Your task to perform on an android device: Go to accessibility settings Image 0: 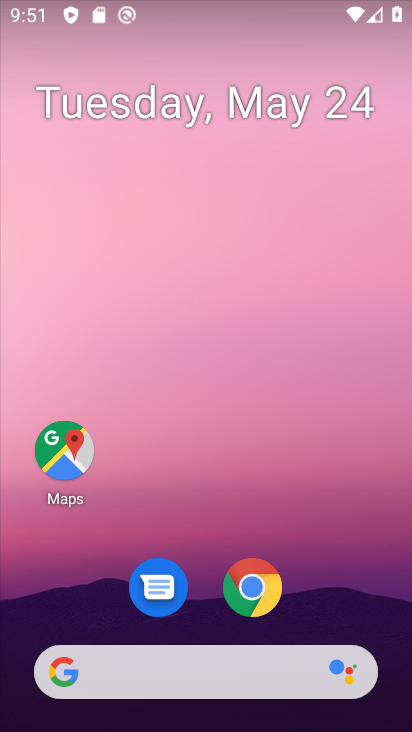
Step 0: press home button
Your task to perform on an android device: Go to accessibility settings Image 1: 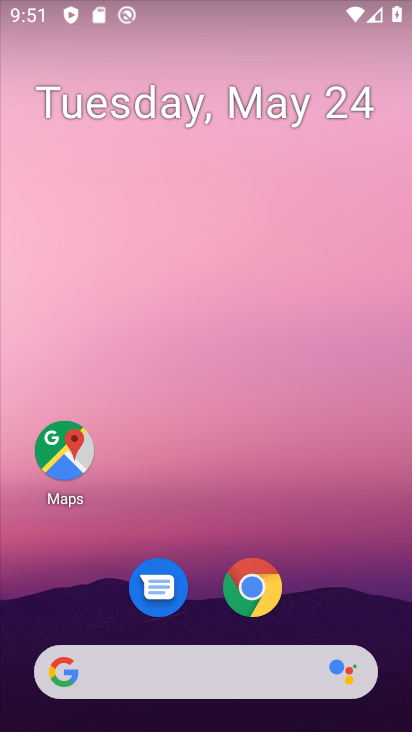
Step 1: drag from (364, 586) to (316, 69)
Your task to perform on an android device: Go to accessibility settings Image 2: 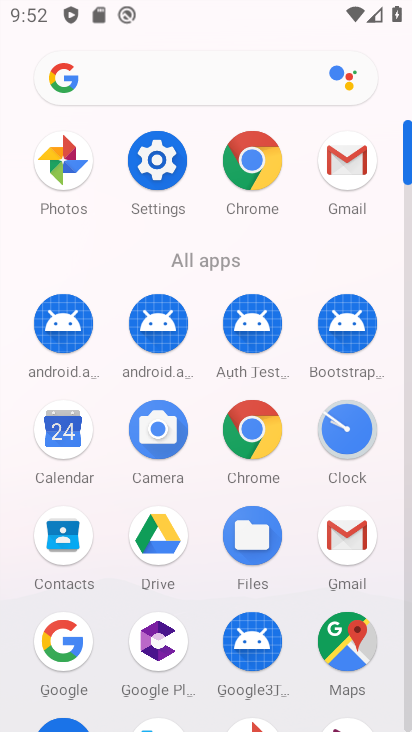
Step 2: click (163, 171)
Your task to perform on an android device: Go to accessibility settings Image 3: 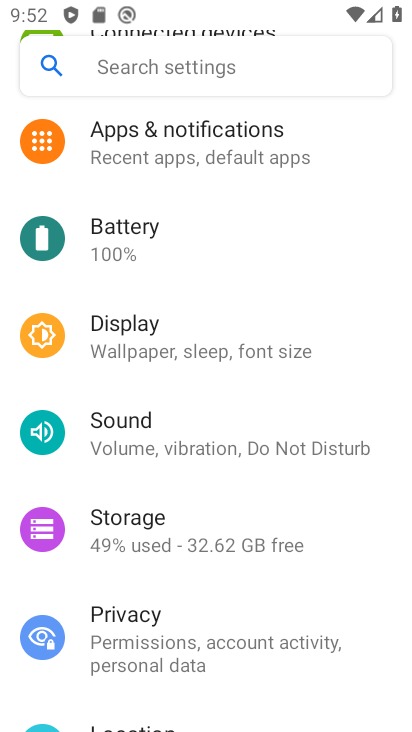
Step 3: drag from (195, 614) to (168, 230)
Your task to perform on an android device: Go to accessibility settings Image 4: 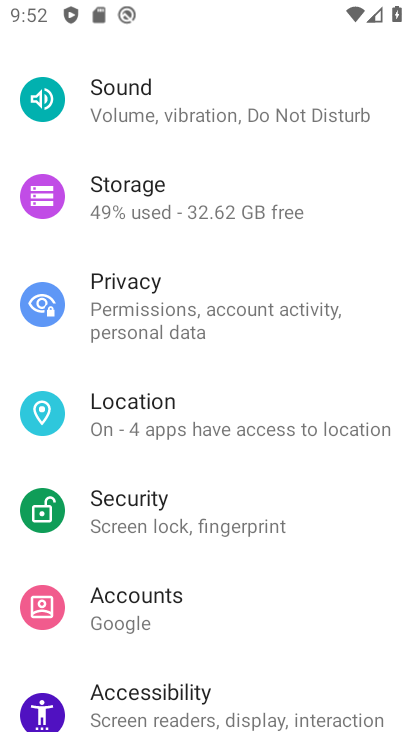
Step 4: drag from (239, 563) to (178, 262)
Your task to perform on an android device: Go to accessibility settings Image 5: 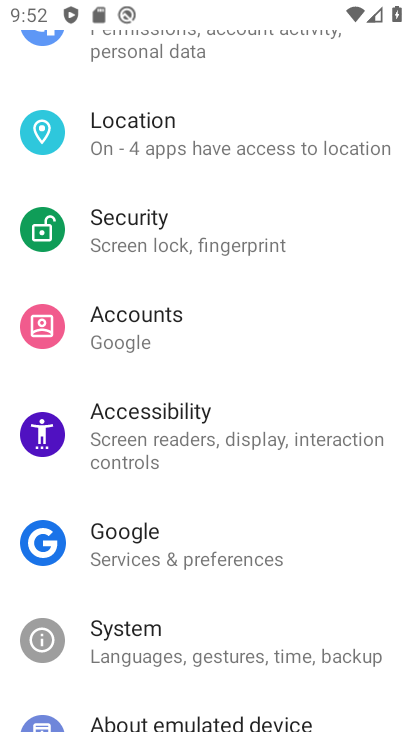
Step 5: click (180, 435)
Your task to perform on an android device: Go to accessibility settings Image 6: 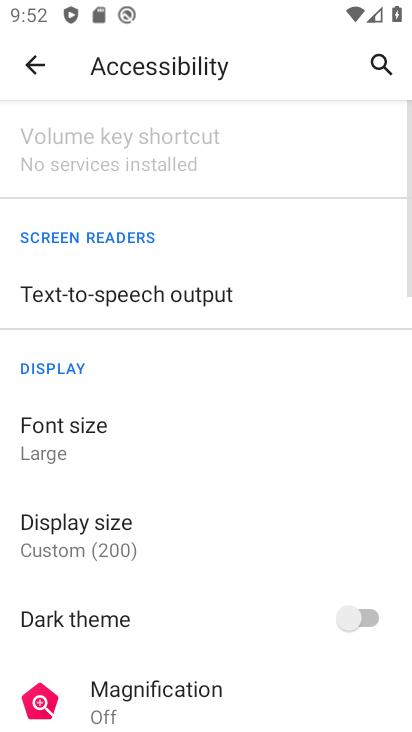
Step 6: task complete